Your task to perform on an android device: Go to calendar. Show me events next week Image 0: 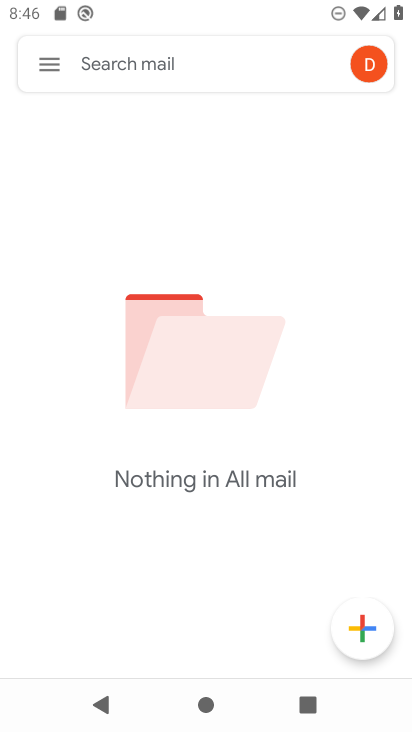
Step 0: press home button
Your task to perform on an android device: Go to calendar. Show me events next week Image 1: 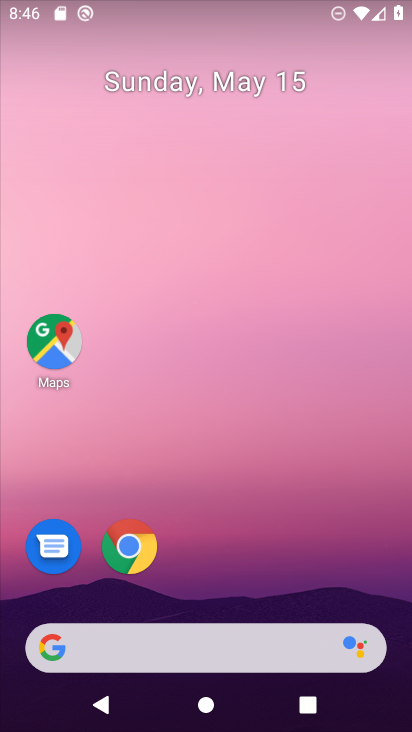
Step 1: drag from (262, 502) to (239, 57)
Your task to perform on an android device: Go to calendar. Show me events next week Image 2: 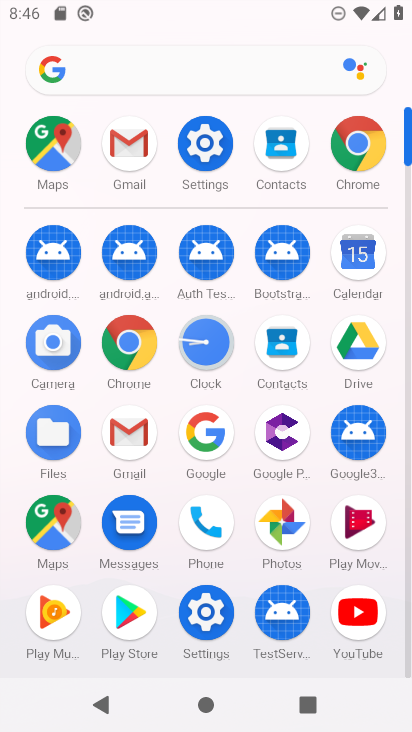
Step 2: click (349, 247)
Your task to perform on an android device: Go to calendar. Show me events next week Image 3: 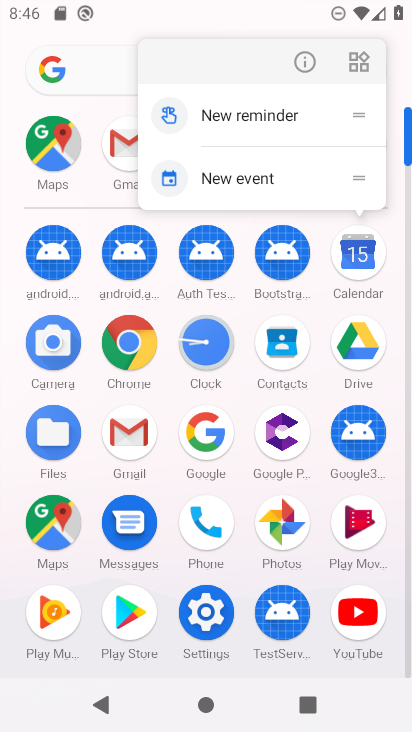
Step 3: click (355, 253)
Your task to perform on an android device: Go to calendar. Show me events next week Image 4: 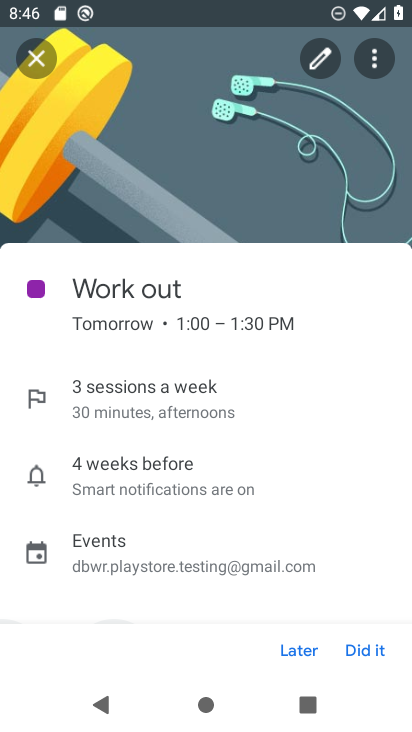
Step 4: click (43, 55)
Your task to perform on an android device: Go to calendar. Show me events next week Image 5: 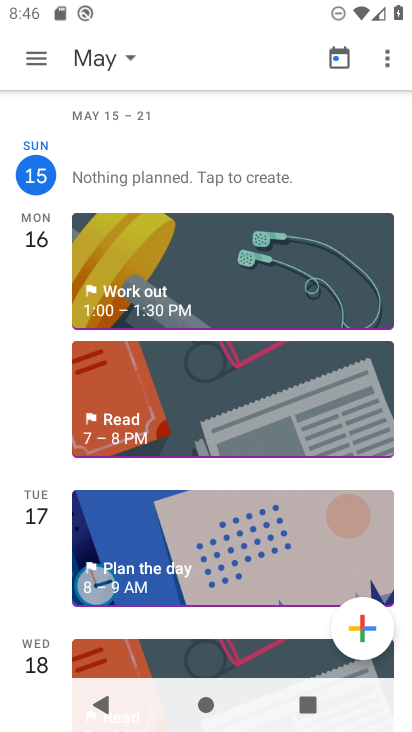
Step 5: click (36, 58)
Your task to perform on an android device: Go to calendar. Show me events next week Image 6: 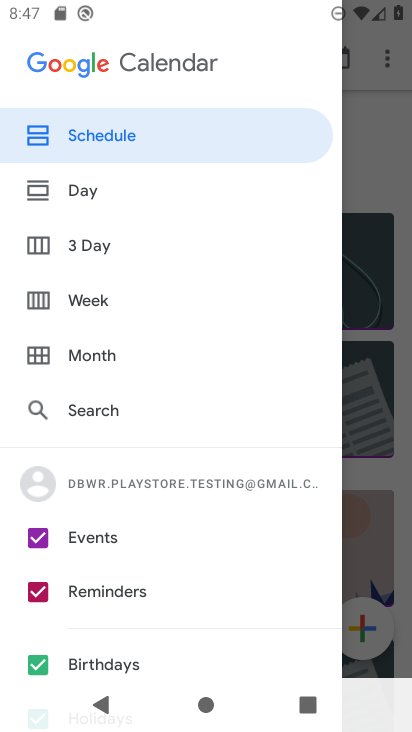
Step 6: click (89, 294)
Your task to perform on an android device: Go to calendar. Show me events next week Image 7: 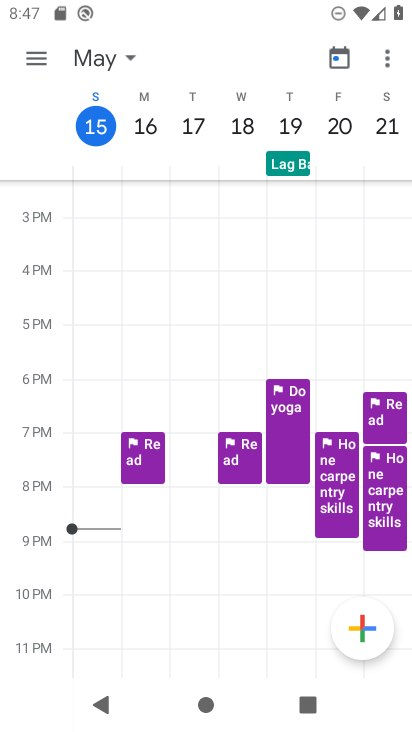
Step 7: task complete